Your task to perform on an android device: Go to ESPN.com Image 0: 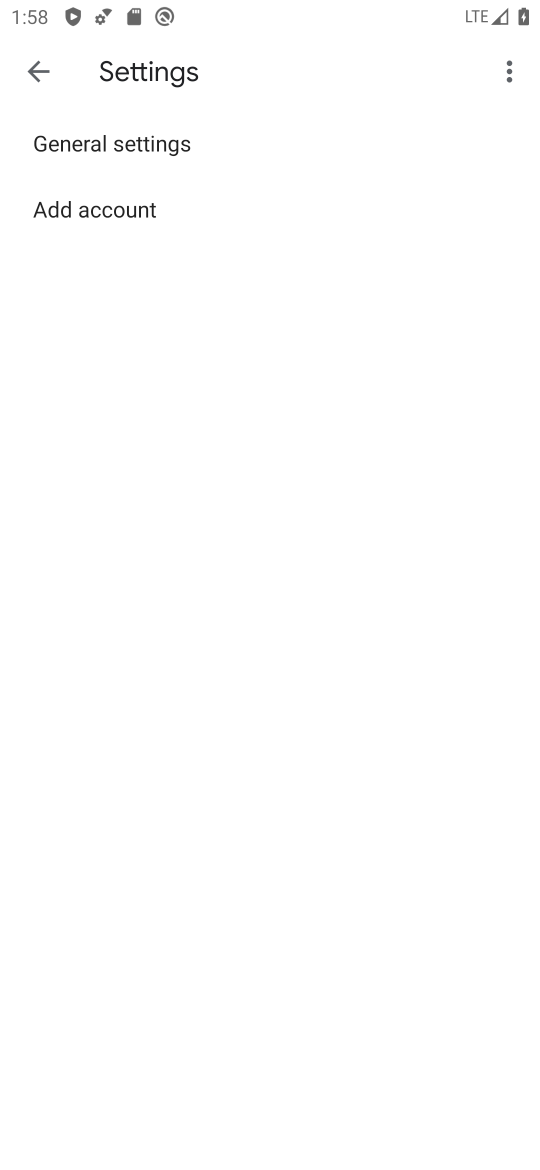
Step 0: task complete